Your task to perform on an android device: change your default location settings in chrome Image 0: 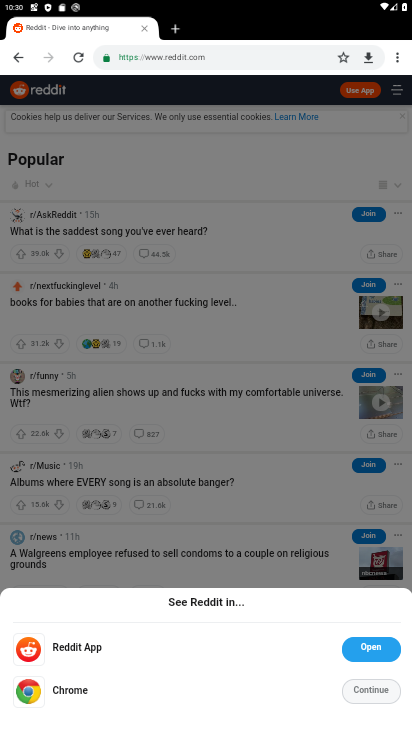
Step 0: press home button
Your task to perform on an android device: change your default location settings in chrome Image 1: 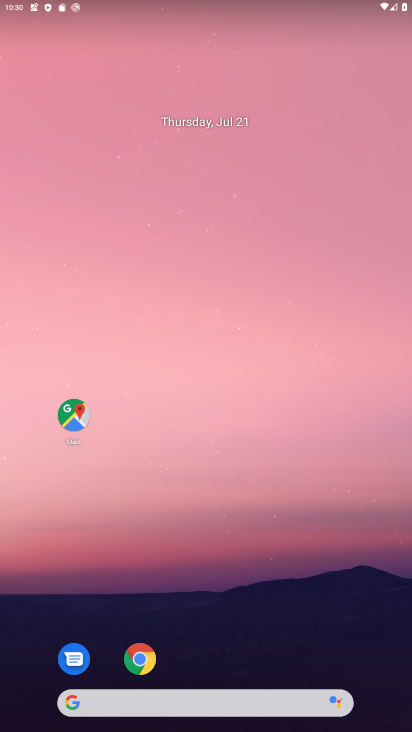
Step 1: click (147, 658)
Your task to perform on an android device: change your default location settings in chrome Image 2: 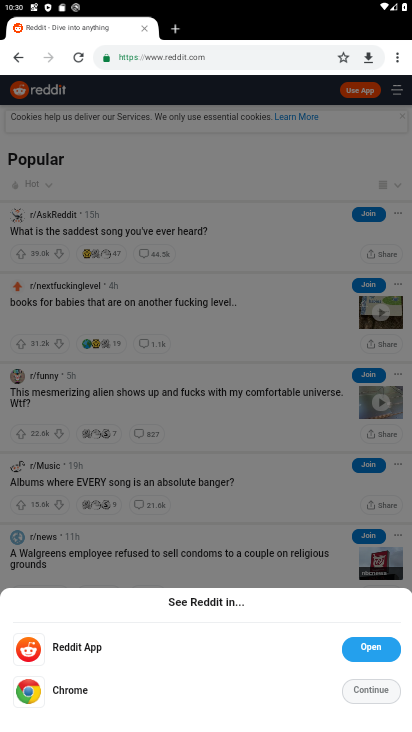
Step 2: drag from (398, 48) to (272, 390)
Your task to perform on an android device: change your default location settings in chrome Image 3: 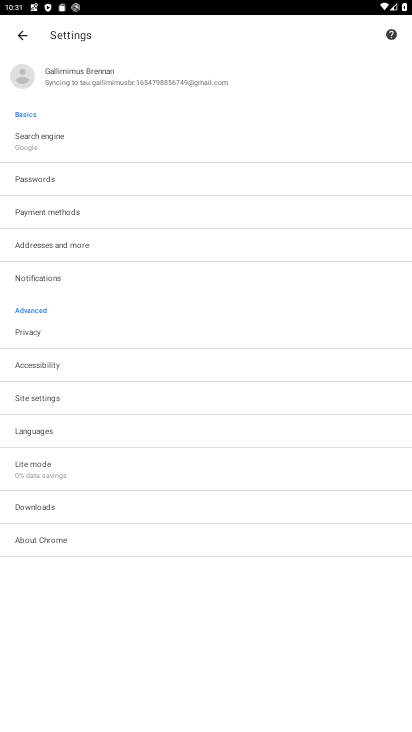
Step 3: click (59, 397)
Your task to perform on an android device: change your default location settings in chrome Image 4: 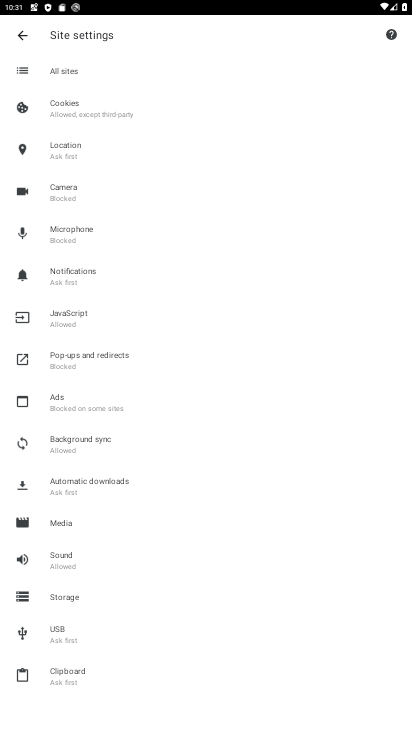
Step 4: click (69, 148)
Your task to perform on an android device: change your default location settings in chrome Image 5: 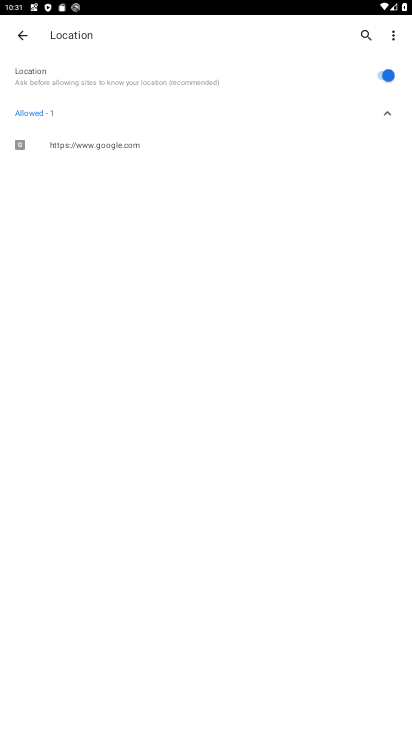
Step 5: click (371, 71)
Your task to perform on an android device: change your default location settings in chrome Image 6: 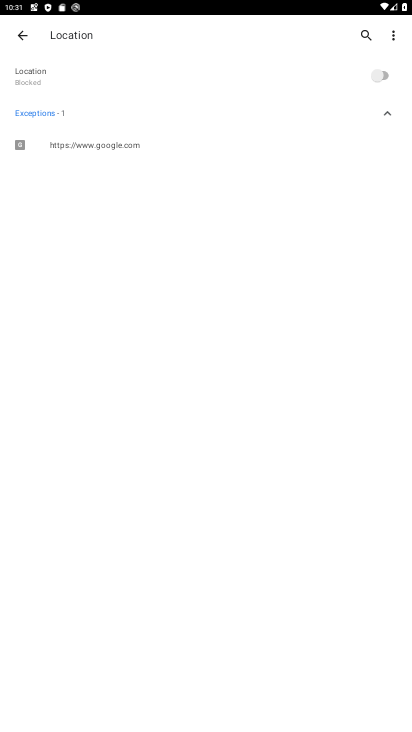
Step 6: task complete